Your task to perform on an android device: Open location settings Image 0: 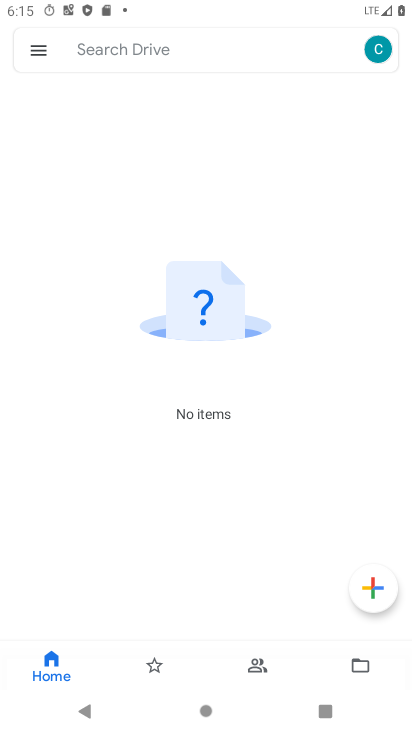
Step 0: press home button
Your task to perform on an android device: Open location settings Image 1: 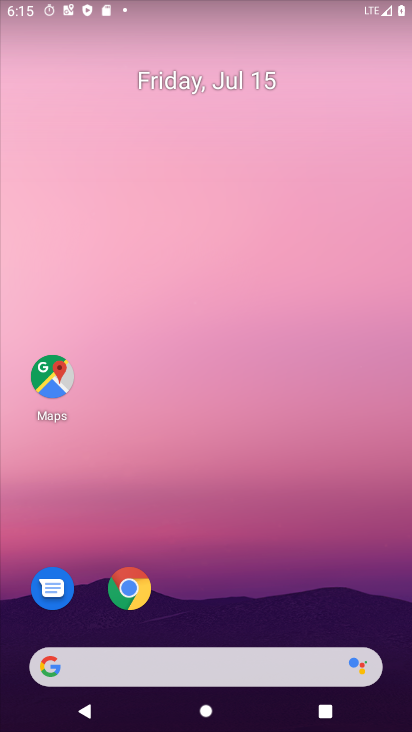
Step 1: drag from (250, 613) to (278, 11)
Your task to perform on an android device: Open location settings Image 2: 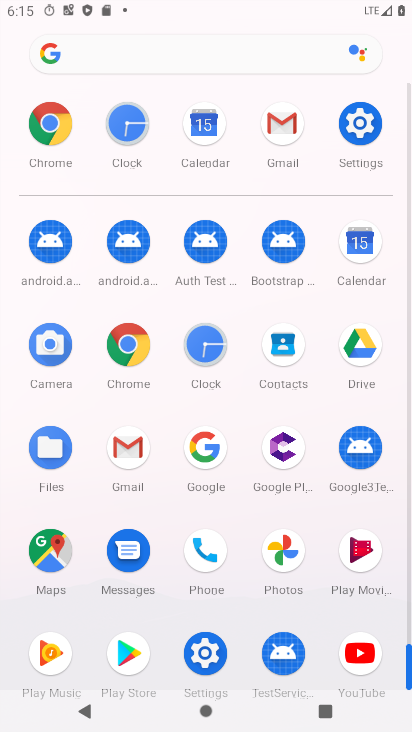
Step 2: click (371, 126)
Your task to perform on an android device: Open location settings Image 3: 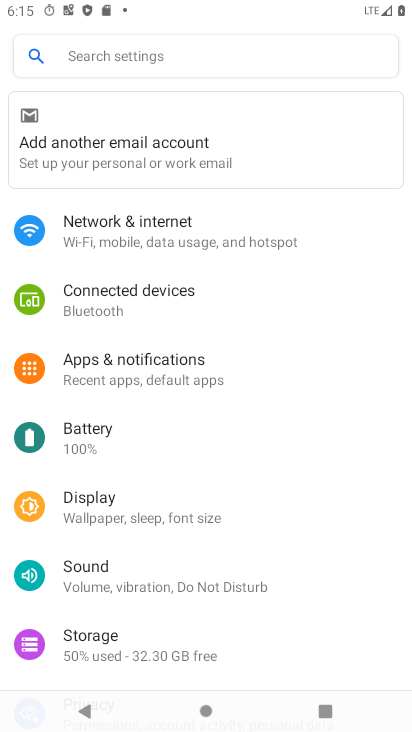
Step 3: drag from (253, 540) to (261, 50)
Your task to perform on an android device: Open location settings Image 4: 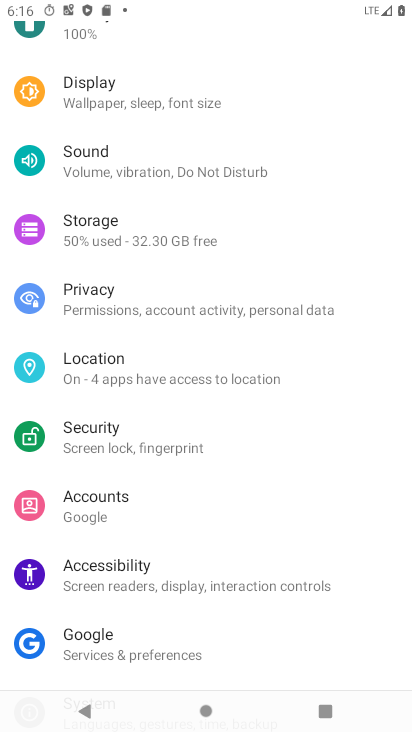
Step 4: click (133, 364)
Your task to perform on an android device: Open location settings Image 5: 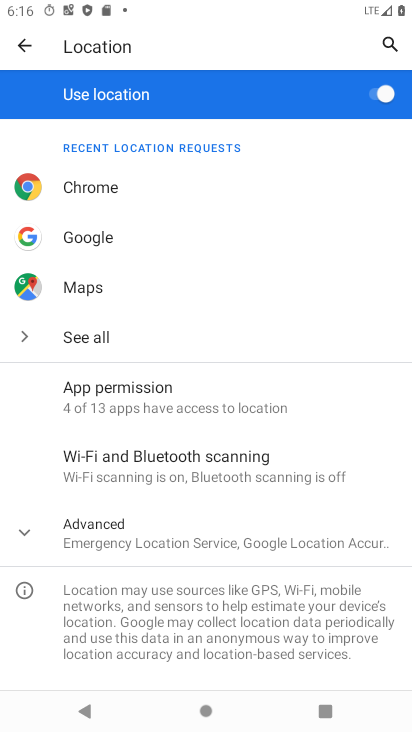
Step 5: task complete